Your task to perform on an android device: What is the news today? Image 0: 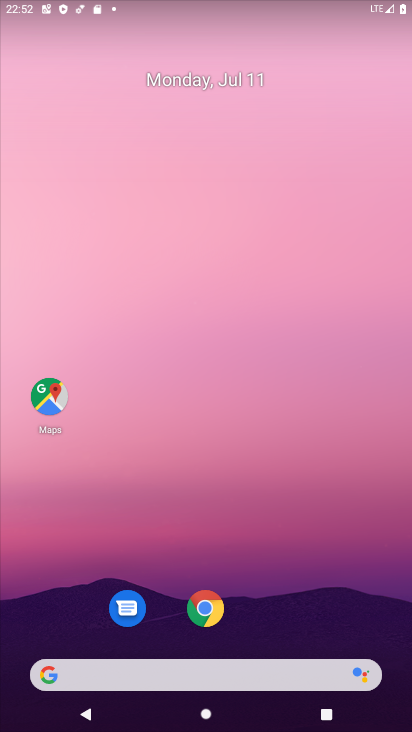
Step 0: click (160, 681)
Your task to perform on an android device: What is the news today? Image 1: 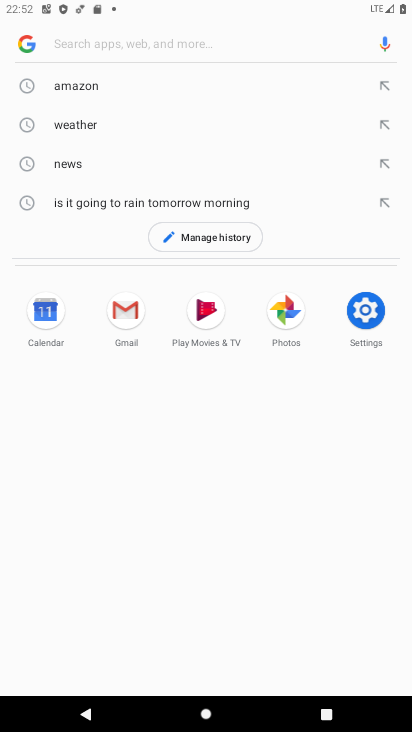
Step 1: type "What is the news today?"
Your task to perform on an android device: What is the news today? Image 2: 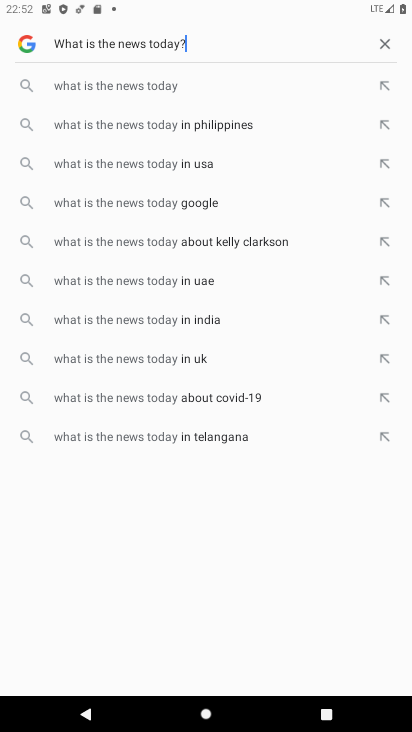
Step 2: type ""
Your task to perform on an android device: What is the news today? Image 3: 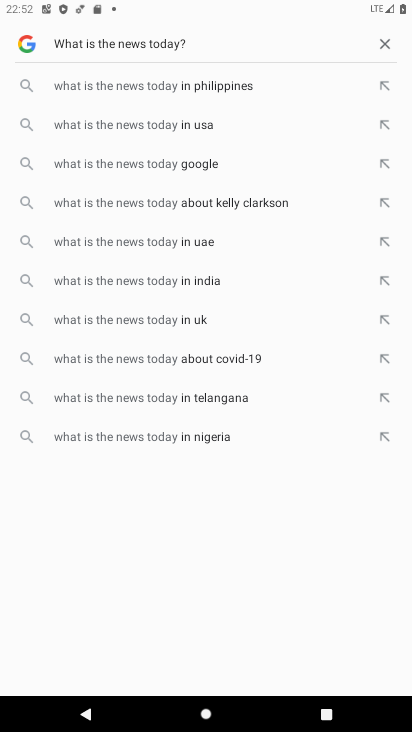
Step 3: type "  "
Your task to perform on an android device: What is the news today? Image 4: 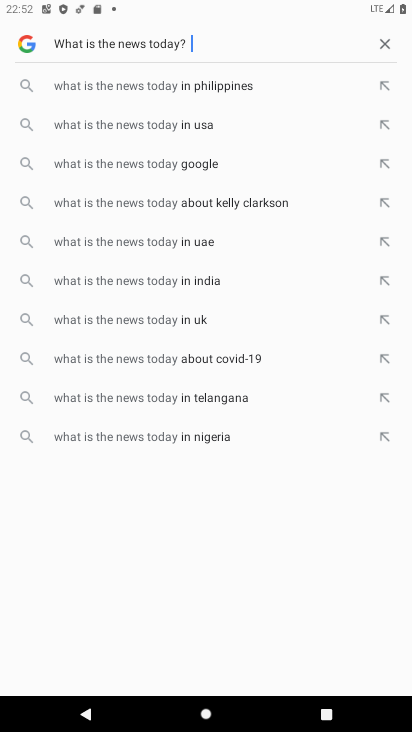
Step 4: task complete